Your task to perform on an android device: When is my next appointment? Image 0: 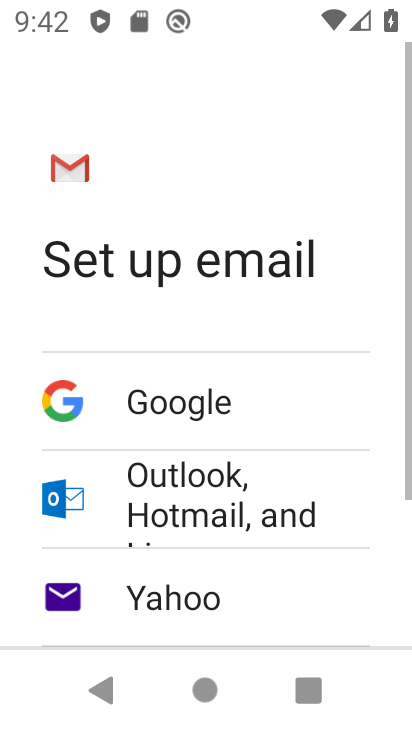
Step 0: press home button
Your task to perform on an android device: When is my next appointment? Image 1: 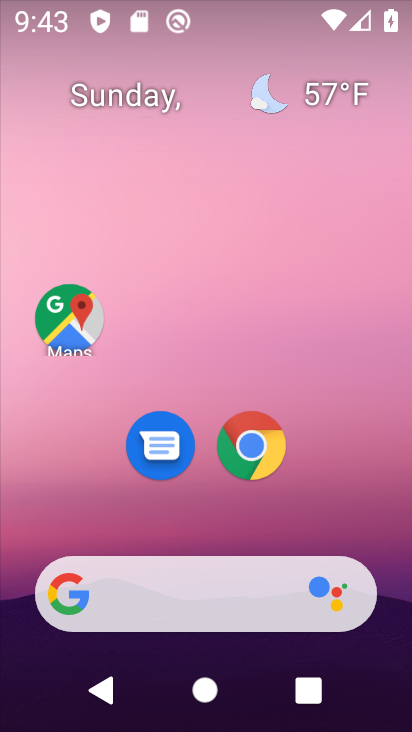
Step 1: drag from (188, 582) to (193, 300)
Your task to perform on an android device: When is my next appointment? Image 2: 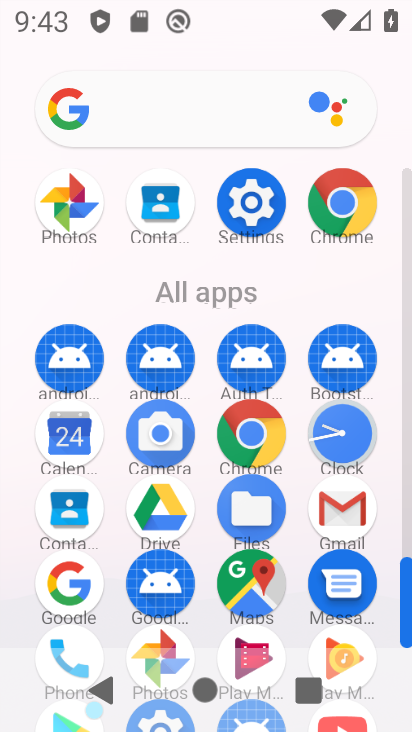
Step 2: click (77, 436)
Your task to perform on an android device: When is my next appointment? Image 3: 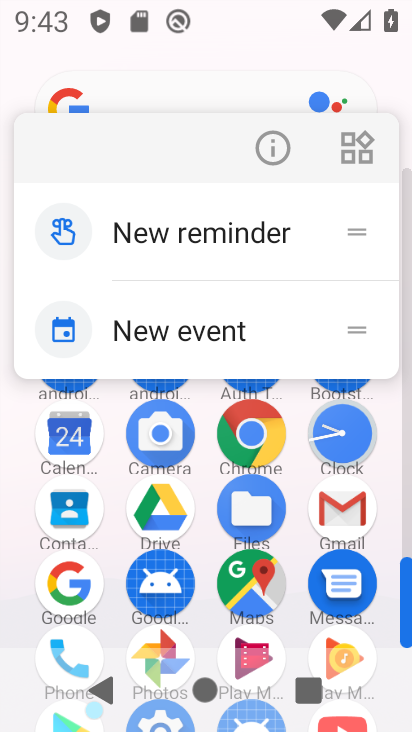
Step 3: click (80, 453)
Your task to perform on an android device: When is my next appointment? Image 4: 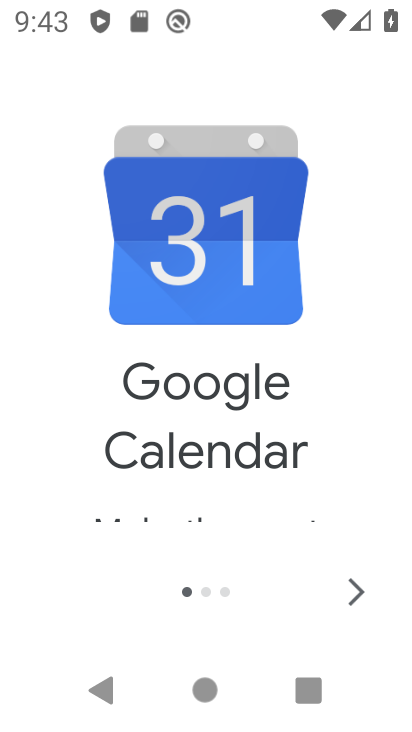
Step 4: click (351, 600)
Your task to perform on an android device: When is my next appointment? Image 5: 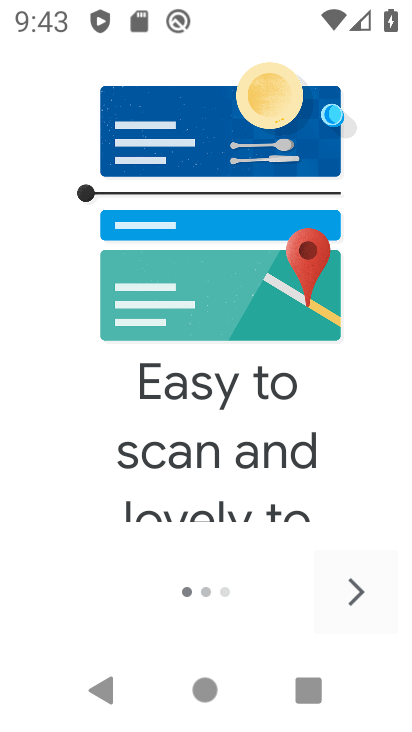
Step 5: click (351, 600)
Your task to perform on an android device: When is my next appointment? Image 6: 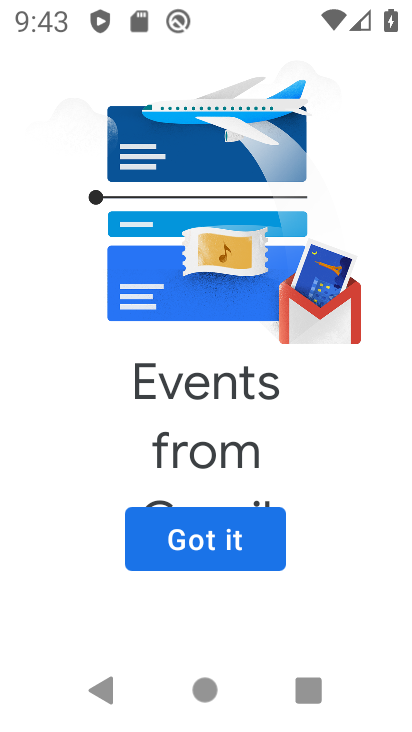
Step 6: click (243, 551)
Your task to perform on an android device: When is my next appointment? Image 7: 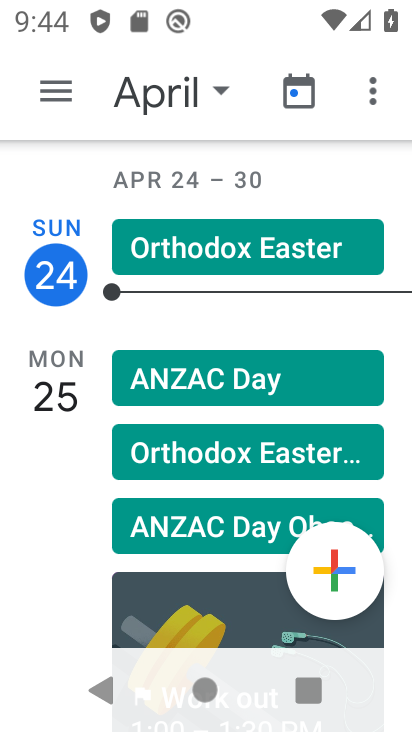
Step 7: click (62, 99)
Your task to perform on an android device: When is my next appointment? Image 8: 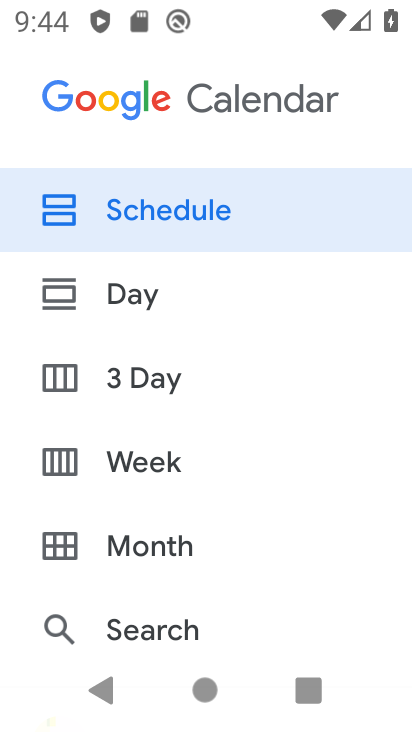
Step 8: click (226, 202)
Your task to perform on an android device: When is my next appointment? Image 9: 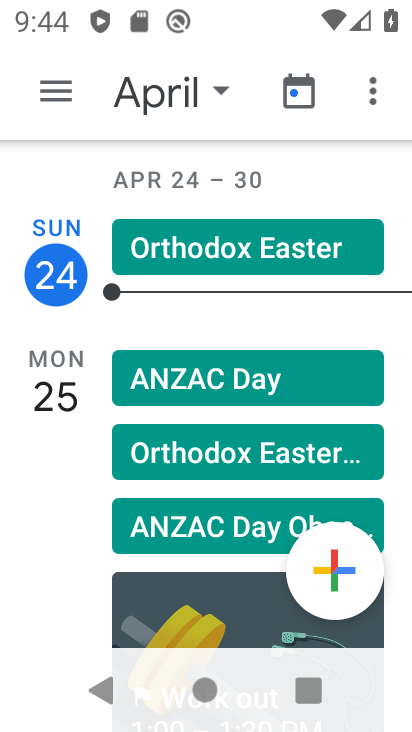
Step 9: task complete